Your task to perform on an android device: toggle pop-ups in chrome Image 0: 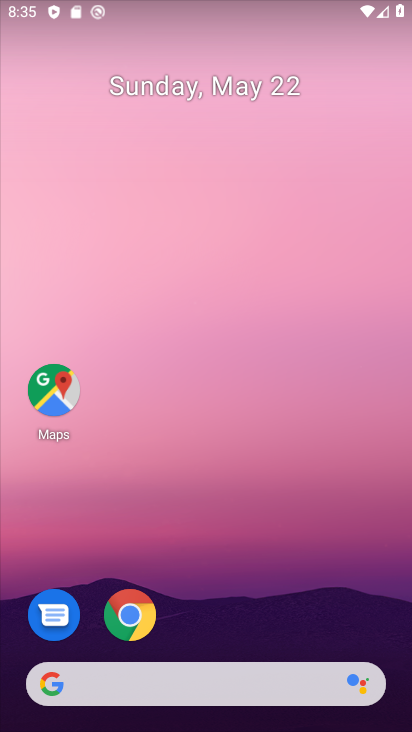
Step 0: drag from (213, 545) to (214, 362)
Your task to perform on an android device: toggle pop-ups in chrome Image 1: 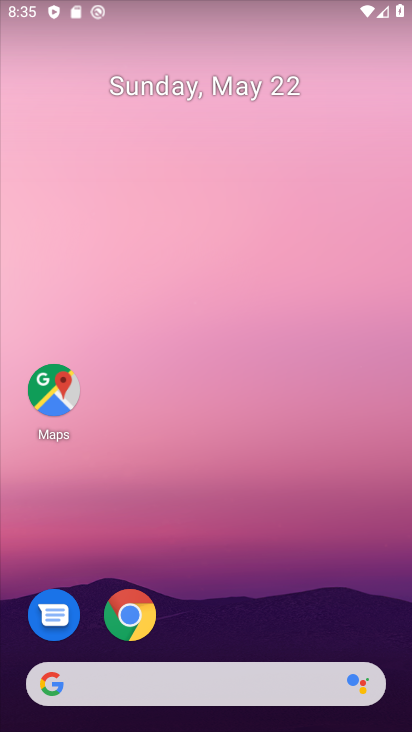
Step 1: click (120, 602)
Your task to perform on an android device: toggle pop-ups in chrome Image 2: 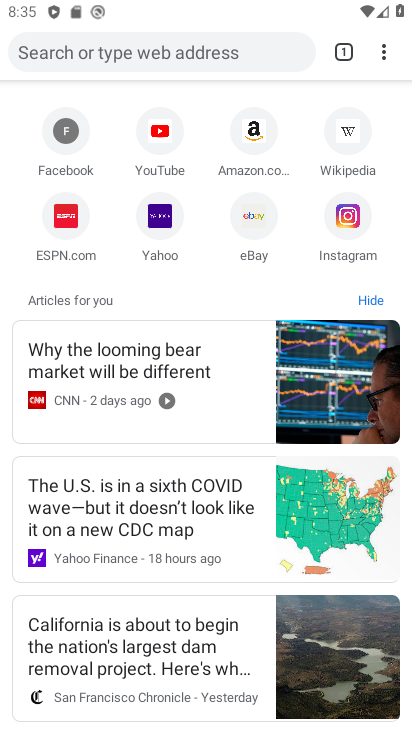
Step 2: click (380, 50)
Your task to perform on an android device: toggle pop-ups in chrome Image 3: 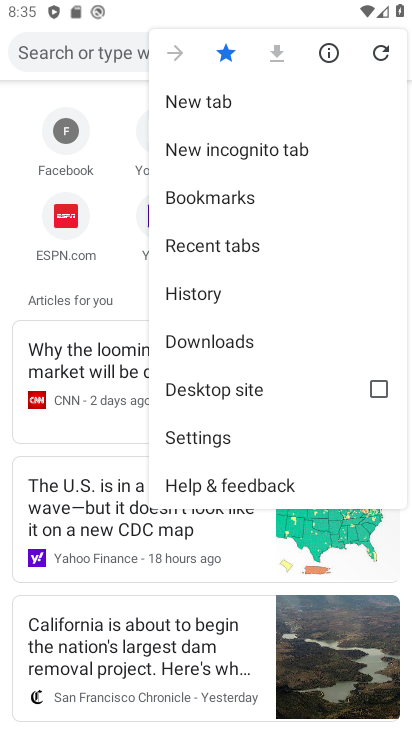
Step 3: click (244, 431)
Your task to perform on an android device: toggle pop-ups in chrome Image 4: 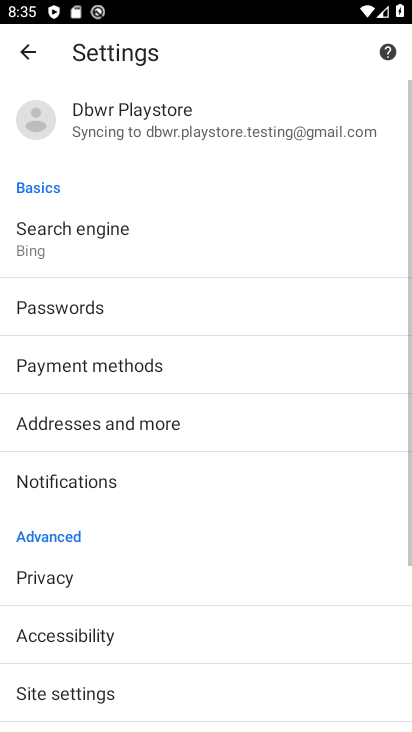
Step 4: drag from (185, 646) to (229, 353)
Your task to perform on an android device: toggle pop-ups in chrome Image 5: 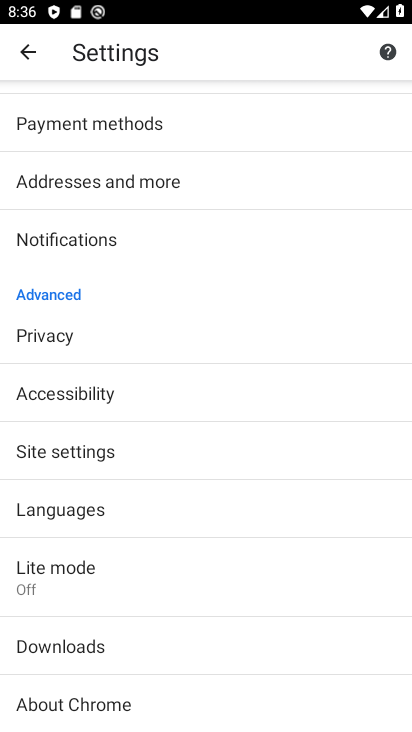
Step 5: click (129, 451)
Your task to perform on an android device: toggle pop-ups in chrome Image 6: 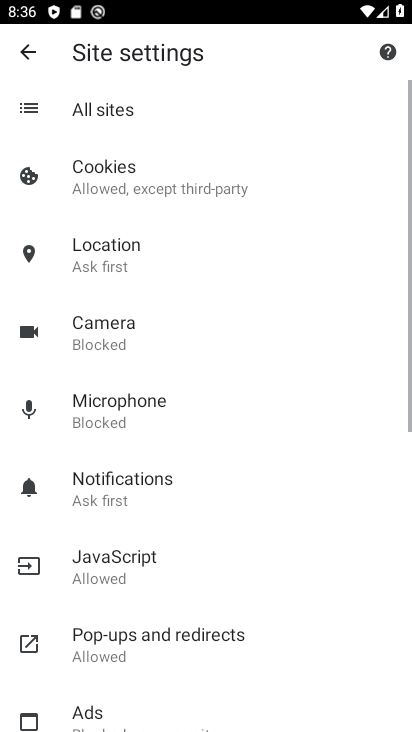
Step 6: drag from (215, 654) to (208, 433)
Your task to perform on an android device: toggle pop-ups in chrome Image 7: 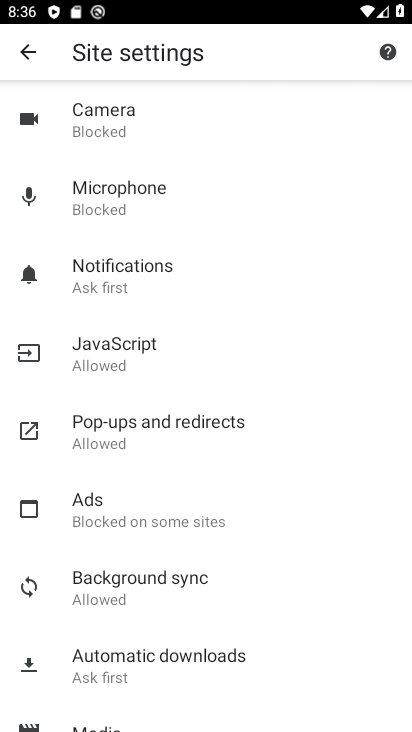
Step 7: click (178, 627)
Your task to perform on an android device: toggle pop-ups in chrome Image 8: 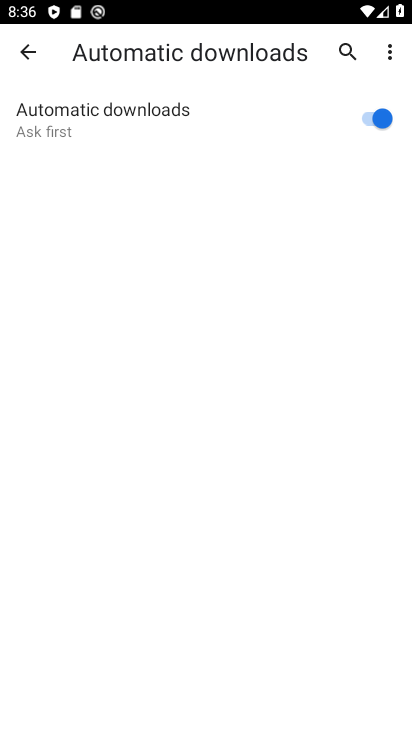
Step 8: click (33, 62)
Your task to perform on an android device: toggle pop-ups in chrome Image 9: 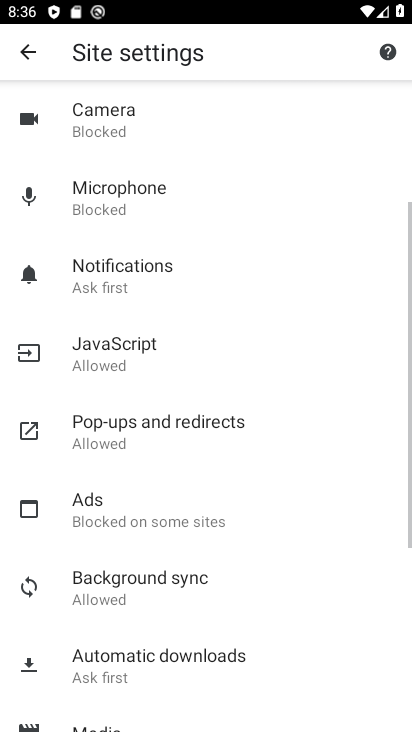
Step 9: click (157, 426)
Your task to perform on an android device: toggle pop-ups in chrome Image 10: 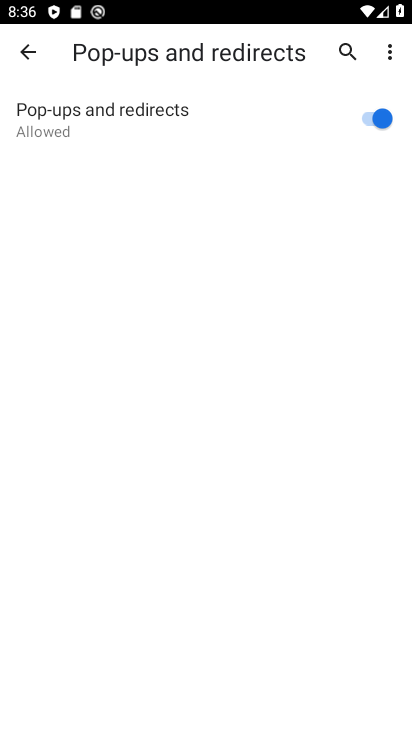
Step 10: click (363, 113)
Your task to perform on an android device: toggle pop-ups in chrome Image 11: 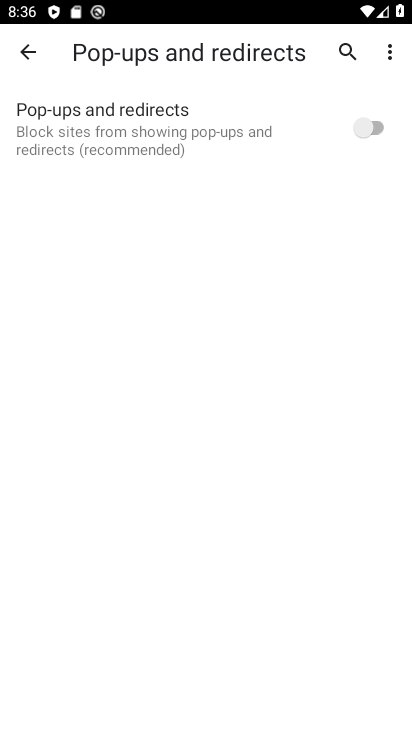
Step 11: task complete